Your task to perform on an android device: Go to Yahoo.com Image 0: 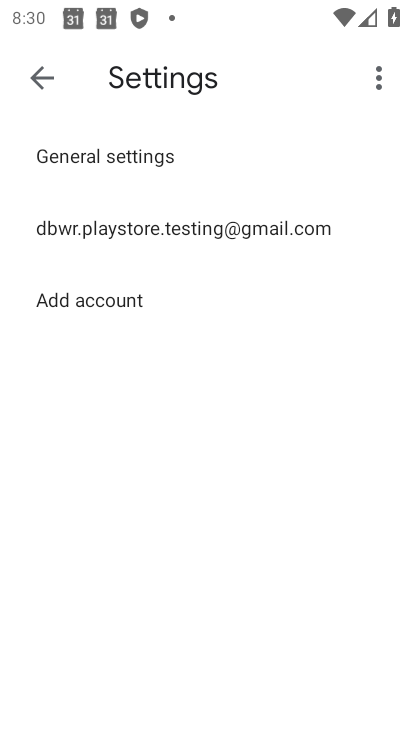
Step 0: press back button
Your task to perform on an android device: Go to Yahoo.com Image 1: 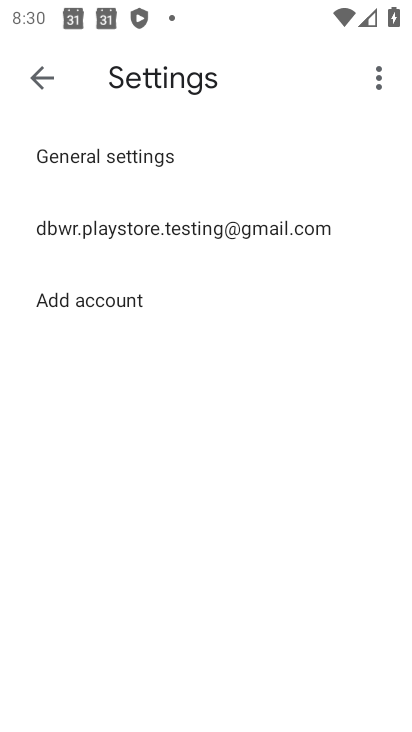
Step 1: press back button
Your task to perform on an android device: Go to Yahoo.com Image 2: 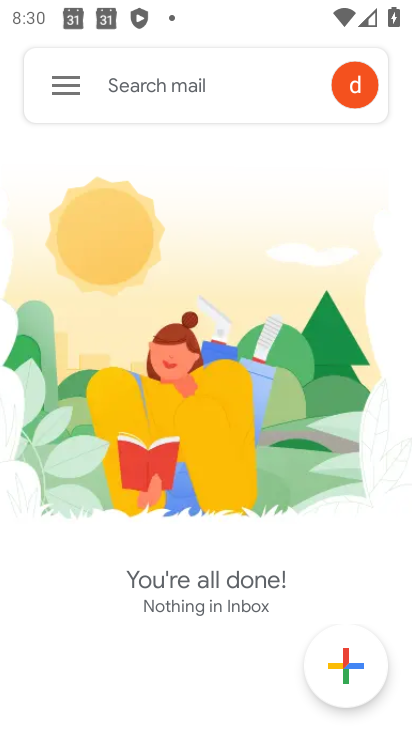
Step 2: press back button
Your task to perform on an android device: Go to Yahoo.com Image 3: 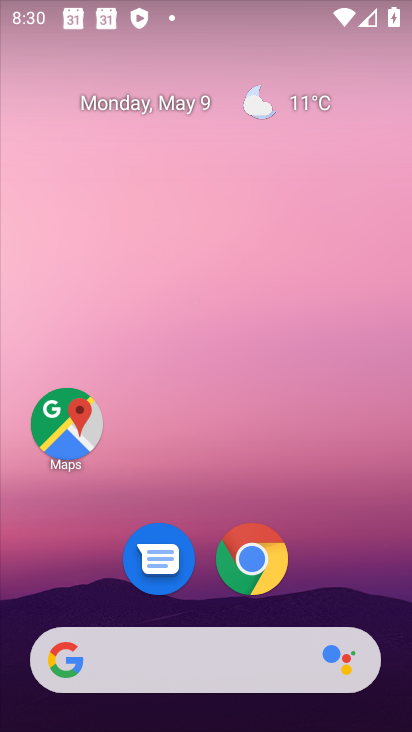
Step 3: drag from (344, 607) to (125, 26)
Your task to perform on an android device: Go to Yahoo.com Image 4: 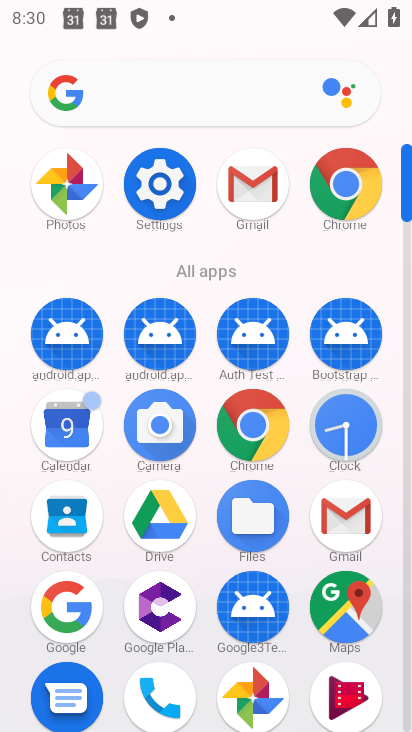
Step 4: click (343, 194)
Your task to perform on an android device: Go to Yahoo.com Image 5: 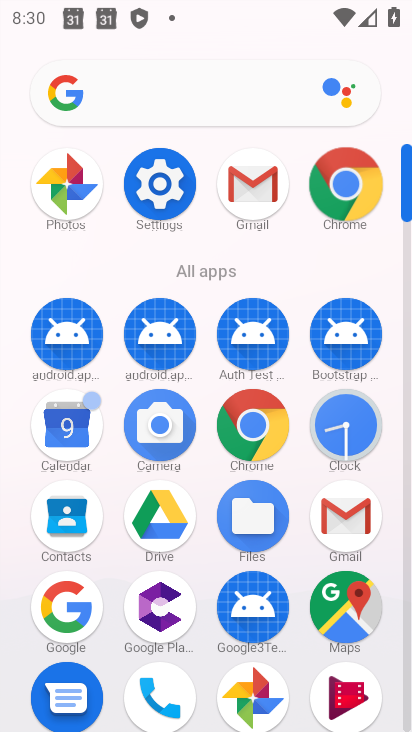
Step 5: click (343, 194)
Your task to perform on an android device: Go to Yahoo.com Image 6: 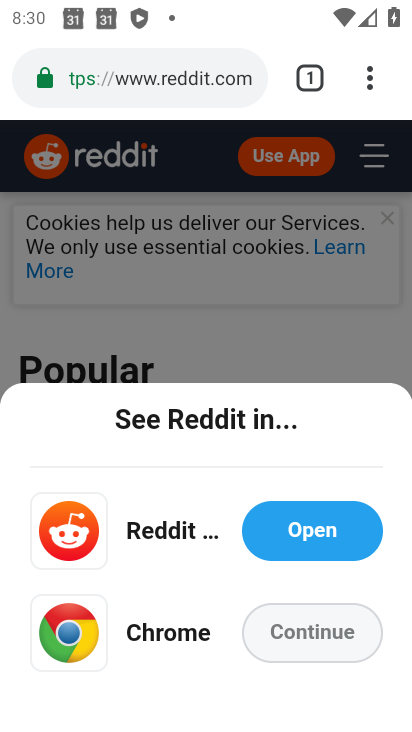
Step 6: click (336, 331)
Your task to perform on an android device: Go to Yahoo.com Image 7: 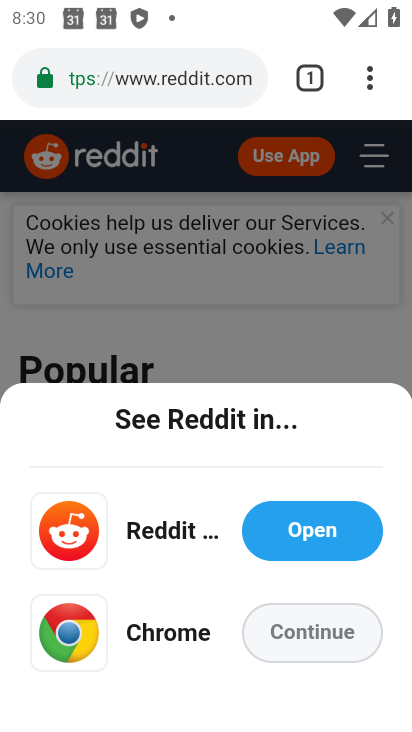
Step 7: click (336, 331)
Your task to perform on an android device: Go to Yahoo.com Image 8: 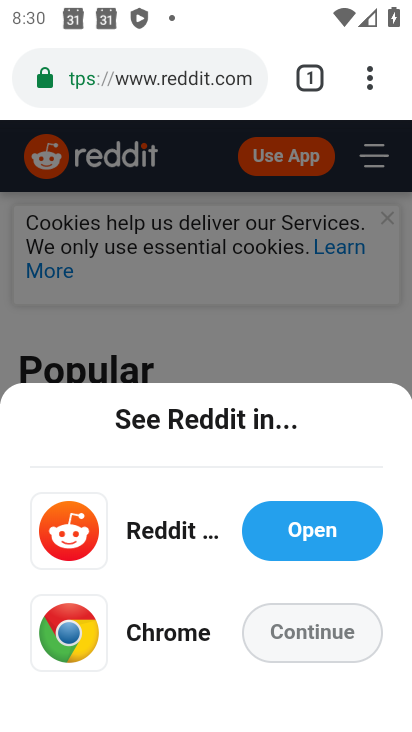
Step 8: click (335, 332)
Your task to perform on an android device: Go to Yahoo.com Image 9: 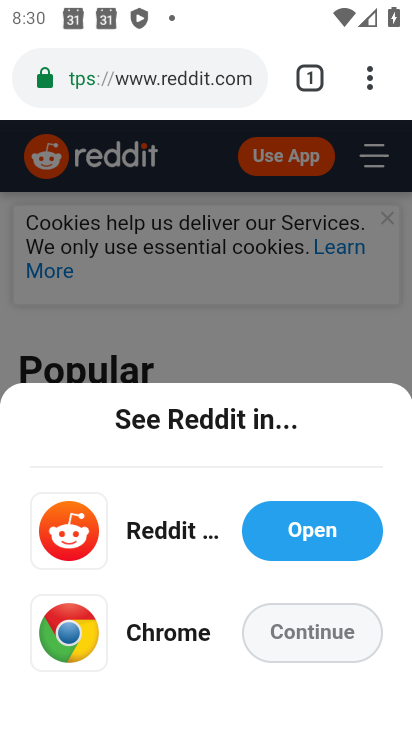
Step 9: click (226, 315)
Your task to perform on an android device: Go to Yahoo.com Image 10: 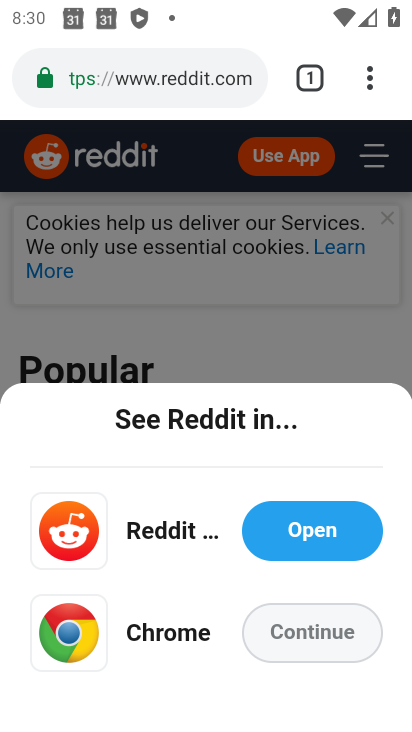
Step 10: click (232, 318)
Your task to perform on an android device: Go to Yahoo.com Image 11: 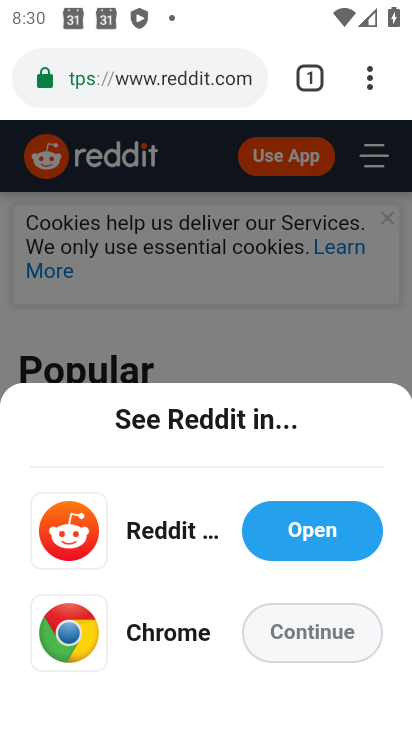
Step 11: click (236, 318)
Your task to perform on an android device: Go to Yahoo.com Image 12: 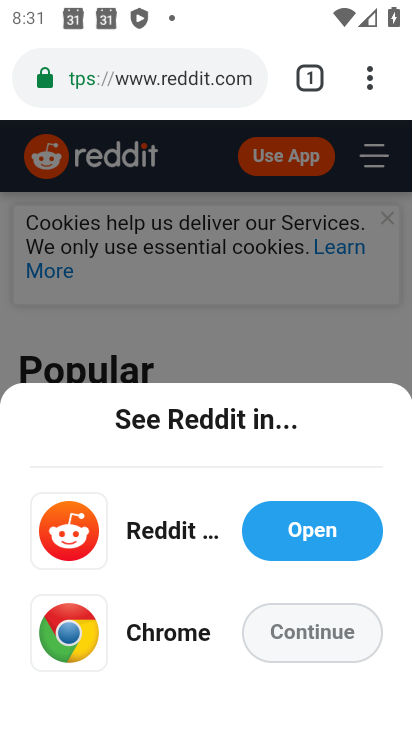
Step 12: click (233, 314)
Your task to perform on an android device: Go to Yahoo.com Image 13: 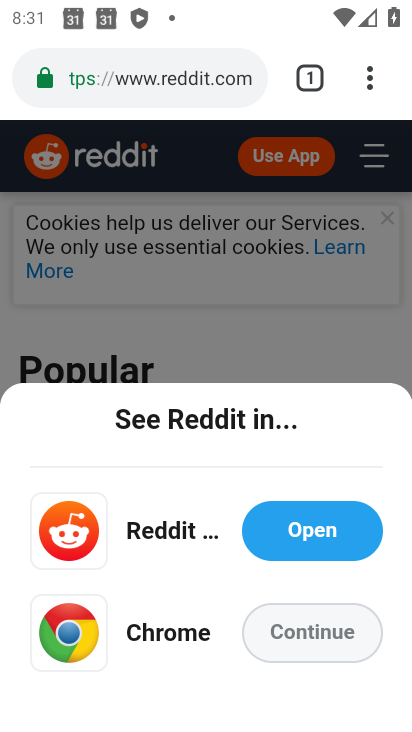
Step 13: press back button
Your task to perform on an android device: Go to Yahoo.com Image 14: 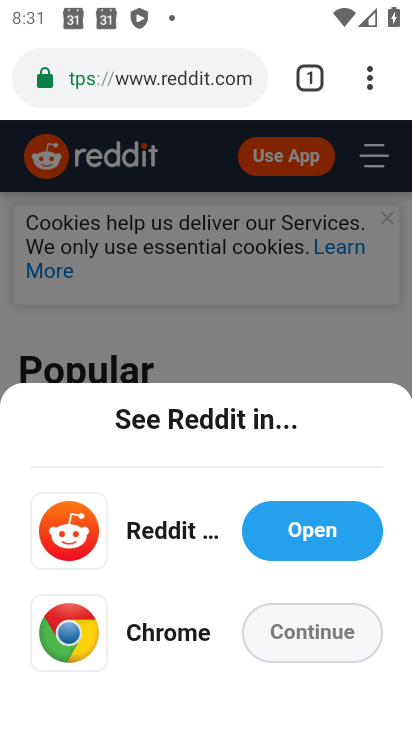
Step 14: press back button
Your task to perform on an android device: Go to Yahoo.com Image 15: 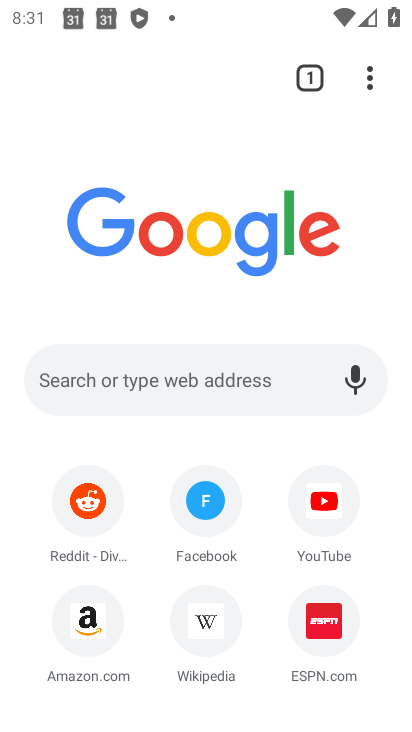
Step 15: press back button
Your task to perform on an android device: Go to Yahoo.com Image 16: 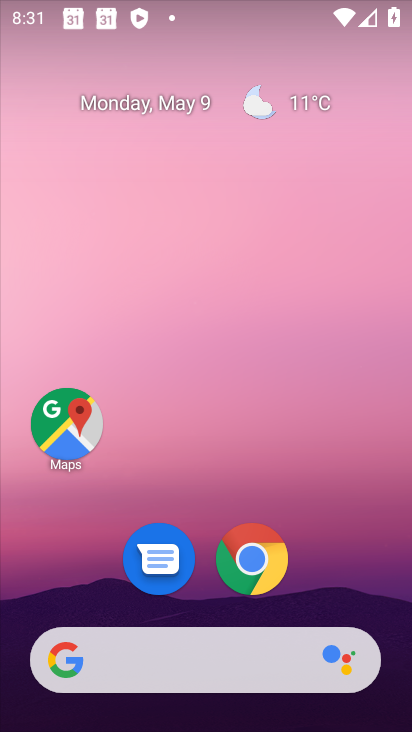
Step 16: click (340, 587)
Your task to perform on an android device: Go to Yahoo.com Image 17: 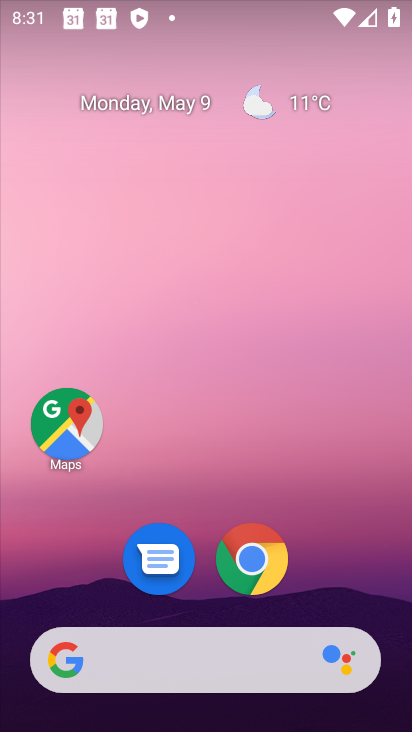
Step 17: click (254, 555)
Your task to perform on an android device: Go to Yahoo.com Image 18: 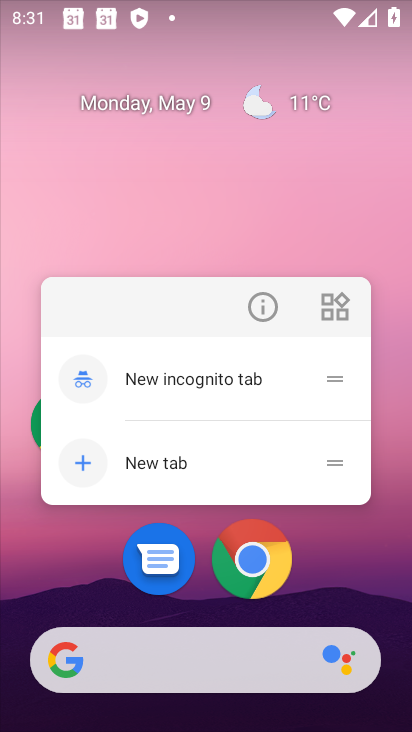
Step 18: click (256, 544)
Your task to perform on an android device: Go to Yahoo.com Image 19: 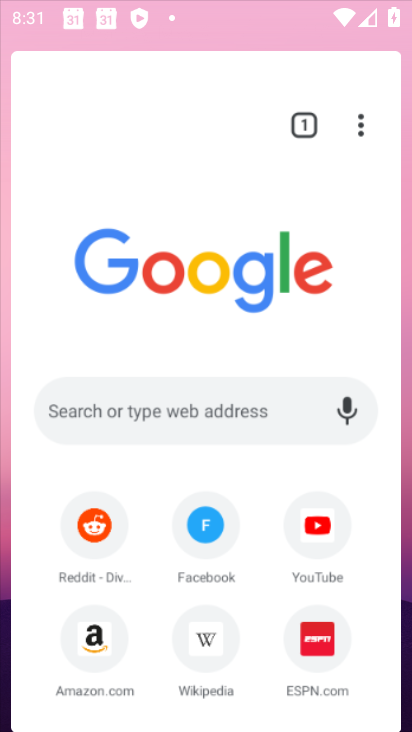
Step 19: click (245, 522)
Your task to perform on an android device: Go to Yahoo.com Image 20: 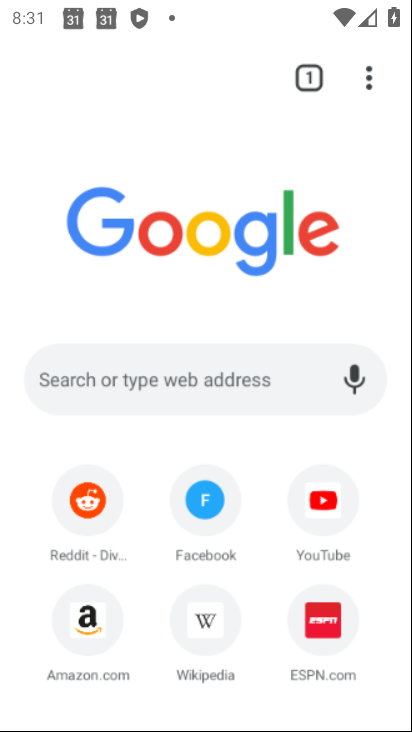
Step 20: click (250, 528)
Your task to perform on an android device: Go to Yahoo.com Image 21: 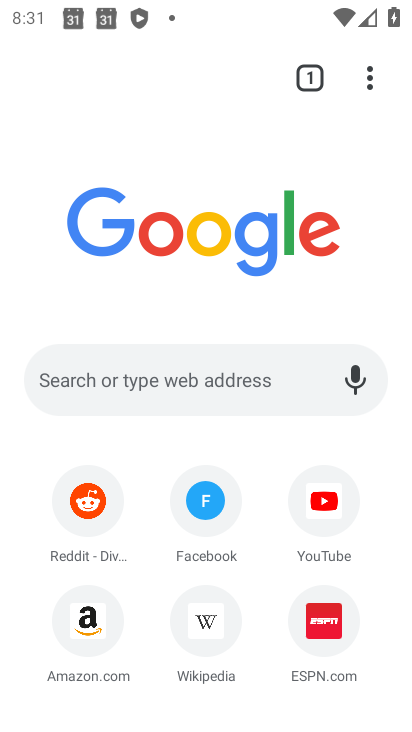
Step 21: drag from (269, 587) to (208, 168)
Your task to perform on an android device: Go to Yahoo.com Image 22: 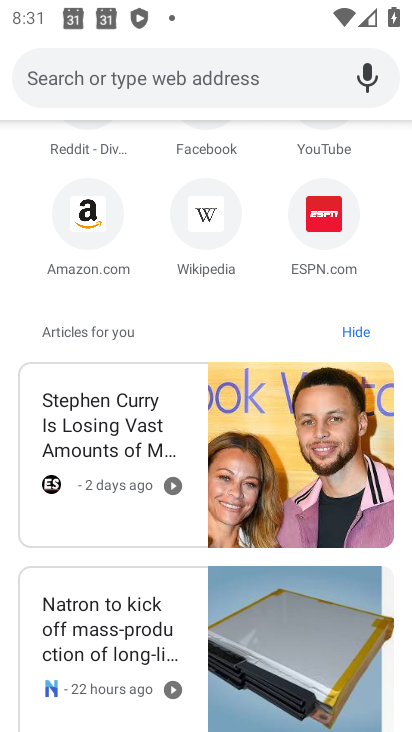
Step 22: click (74, 77)
Your task to perform on an android device: Go to Yahoo.com Image 23: 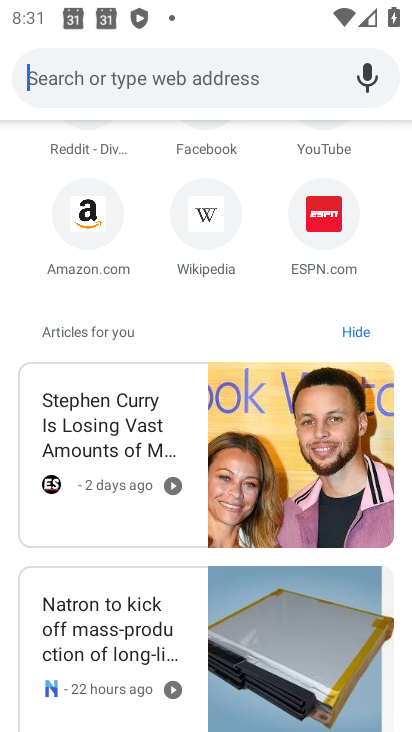
Step 23: click (75, 82)
Your task to perform on an android device: Go to Yahoo.com Image 24: 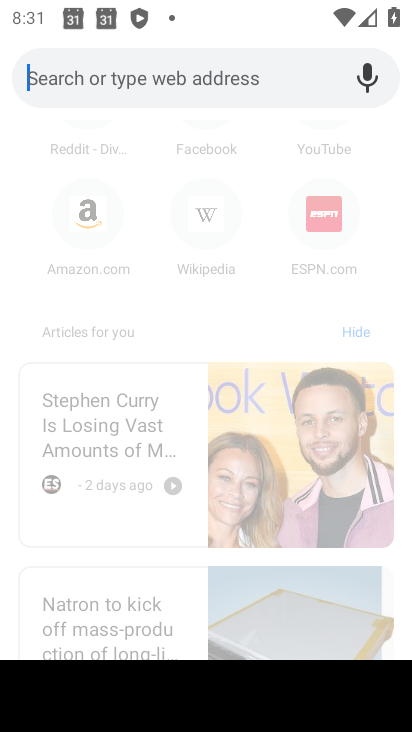
Step 24: click (74, 82)
Your task to perform on an android device: Go to Yahoo.com Image 25: 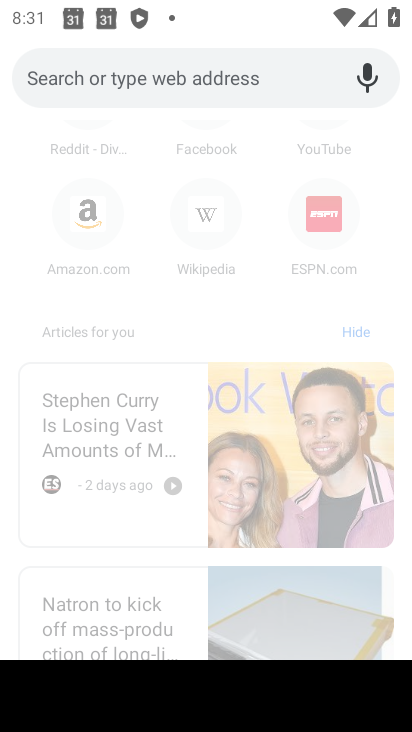
Step 25: click (75, 81)
Your task to perform on an android device: Go to Yahoo.com Image 26: 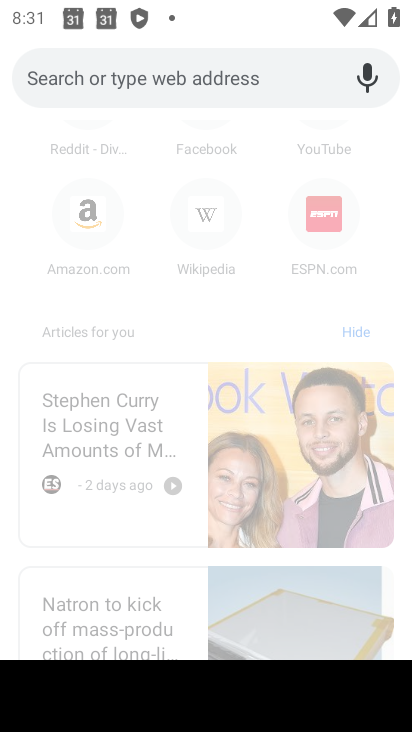
Step 26: click (75, 81)
Your task to perform on an android device: Go to Yahoo.com Image 27: 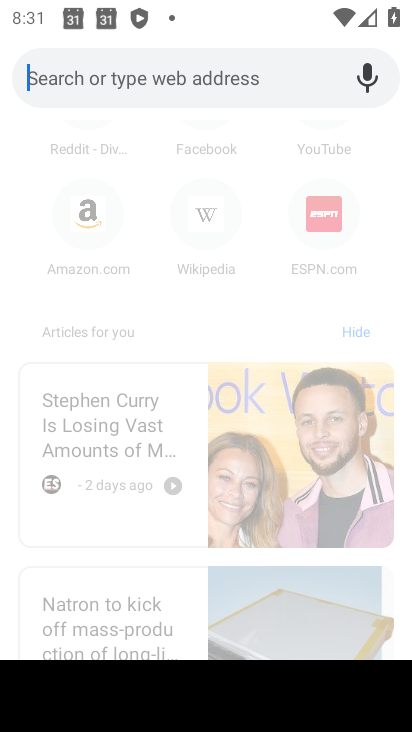
Step 27: click (76, 80)
Your task to perform on an android device: Go to Yahoo.com Image 28: 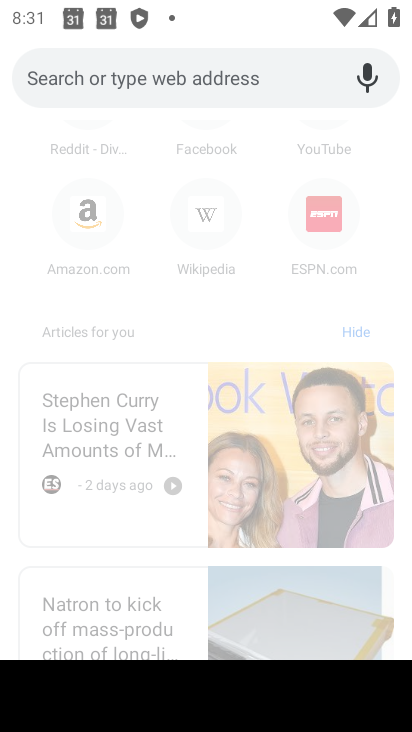
Step 28: click (77, 80)
Your task to perform on an android device: Go to Yahoo.com Image 29: 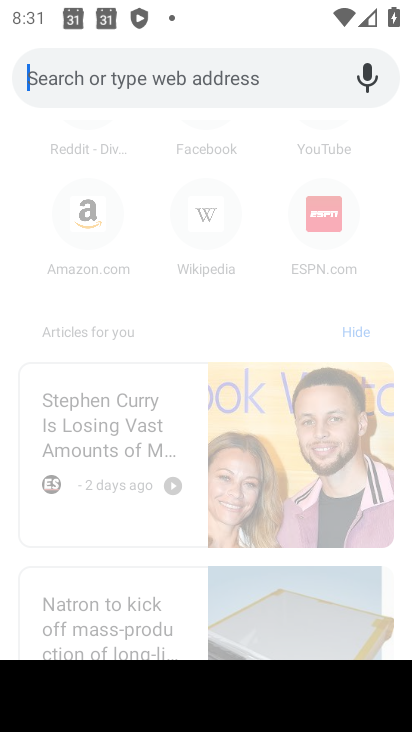
Step 29: type "www. yahoo. com"
Your task to perform on an android device: Go to Yahoo.com Image 30: 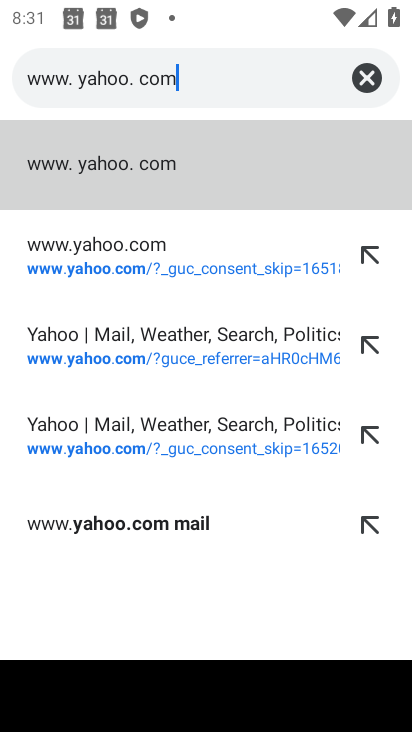
Step 30: click (139, 249)
Your task to perform on an android device: Go to Yahoo.com Image 31: 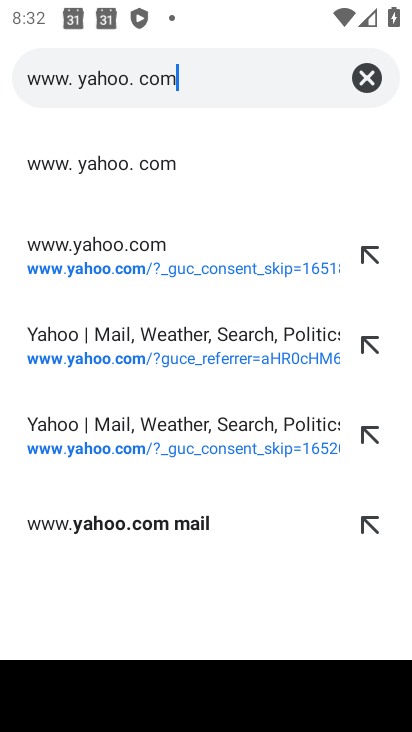
Step 31: click (116, 273)
Your task to perform on an android device: Go to Yahoo.com Image 32: 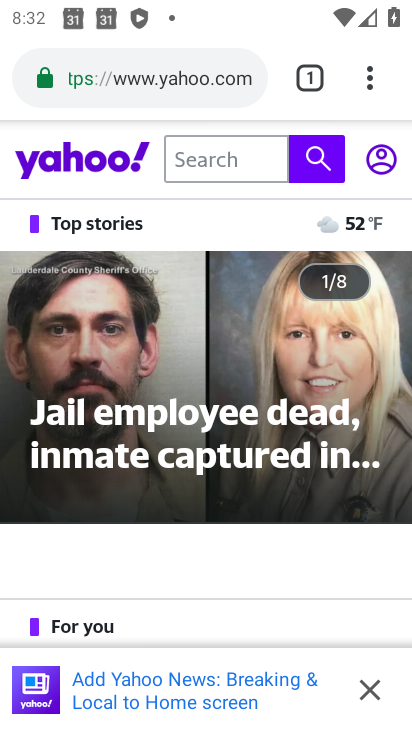
Step 32: task complete